Your task to perform on an android device: open app "Yahoo Mail" Image 0: 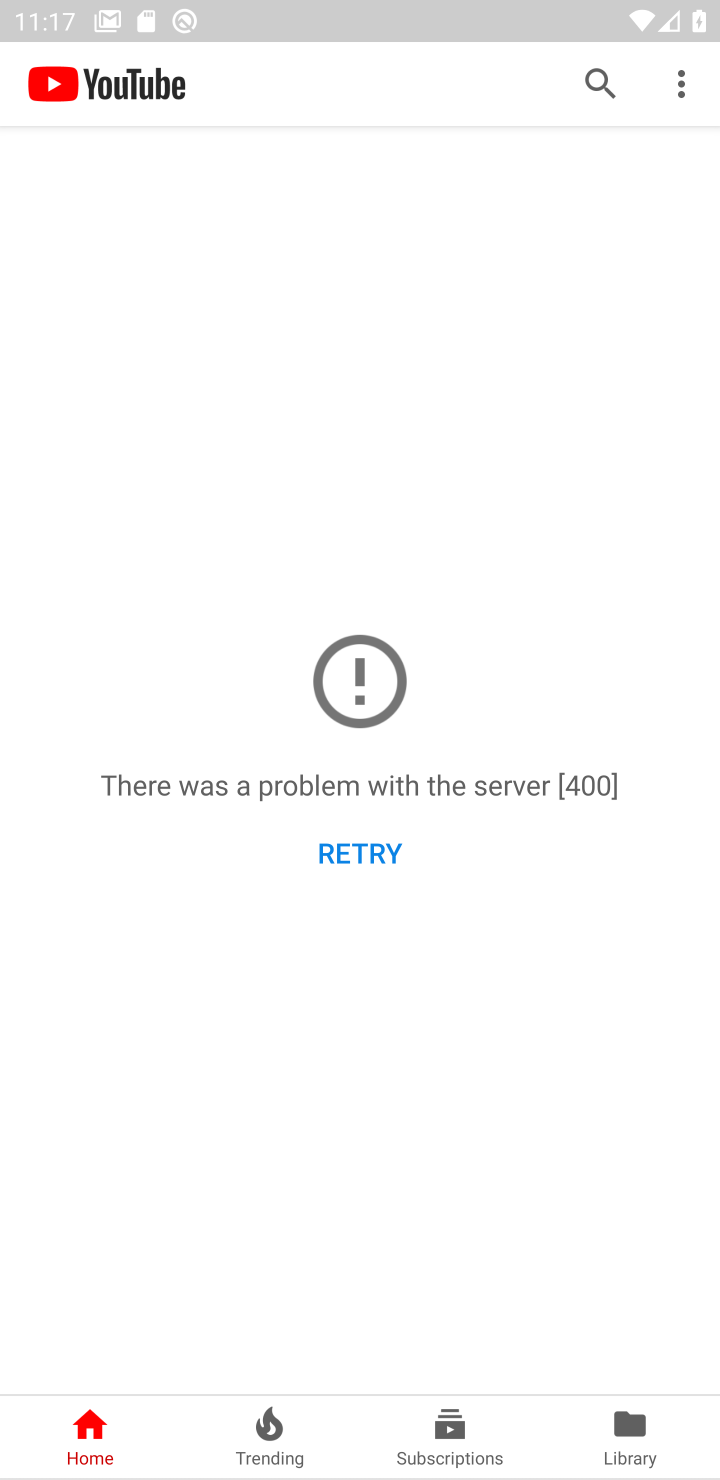
Step 0: press home button
Your task to perform on an android device: open app "Yahoo Mail" Image 1: 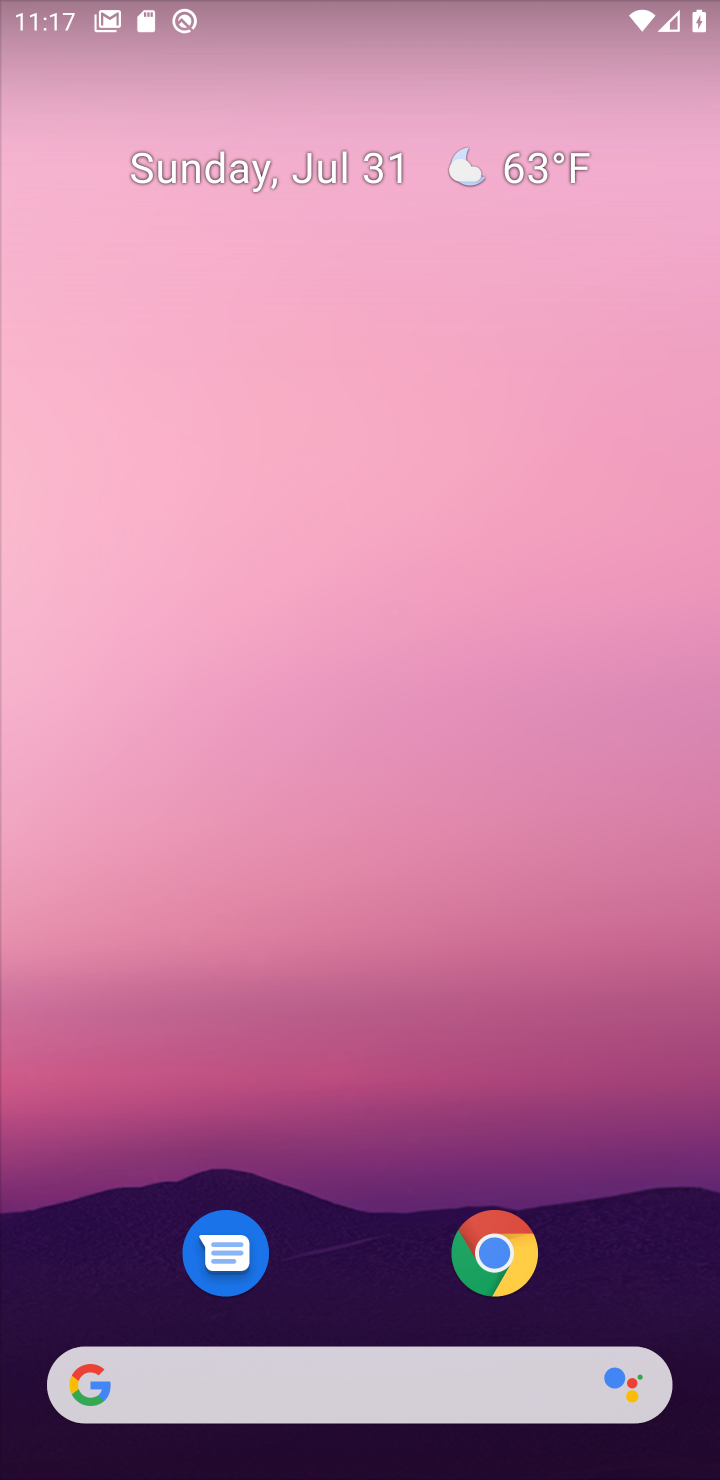
Step 1: drag from (365, 1195) to (431, 170)
Your task to perform on an android device: open app "Yahoo Mail" Image 2: 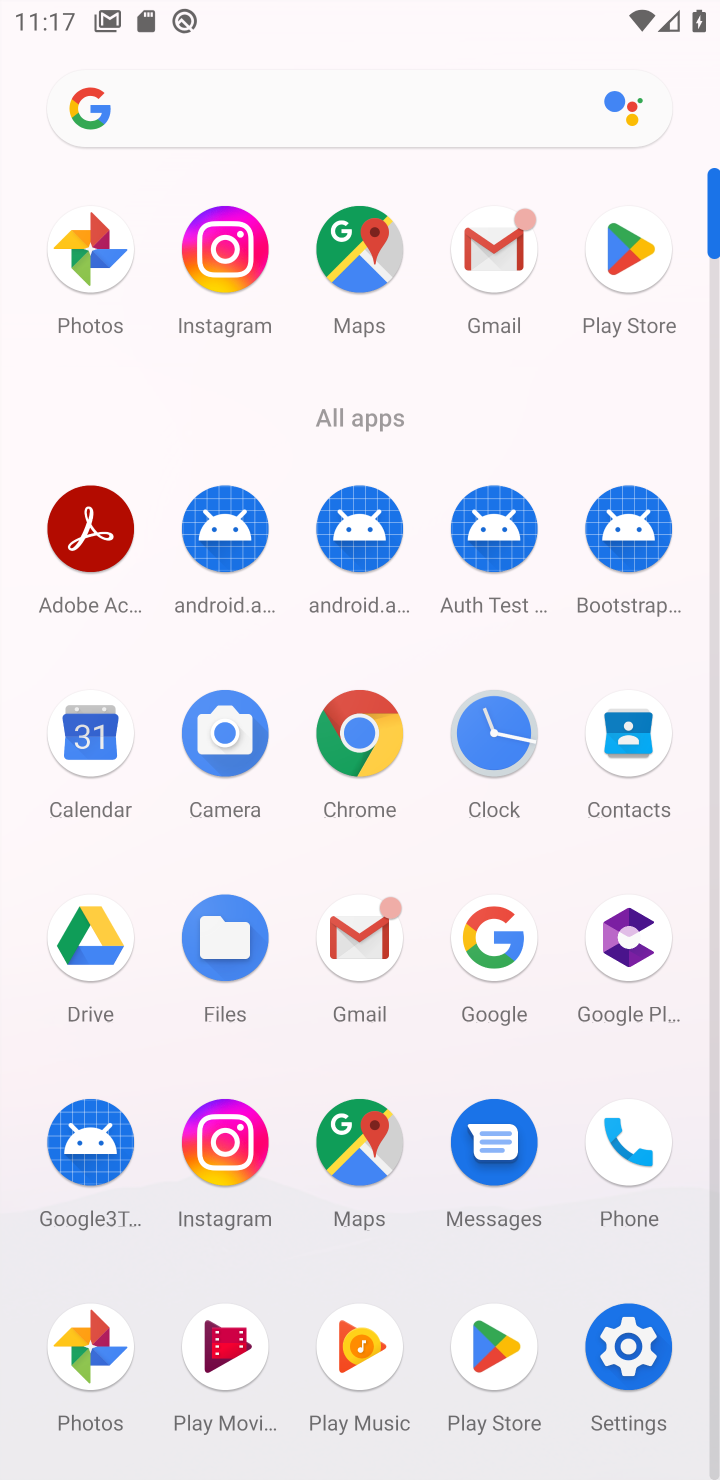
Step 2: click (630, 266)
Your task to perform on an android device: open app "Yahoo Mail" Image 3: 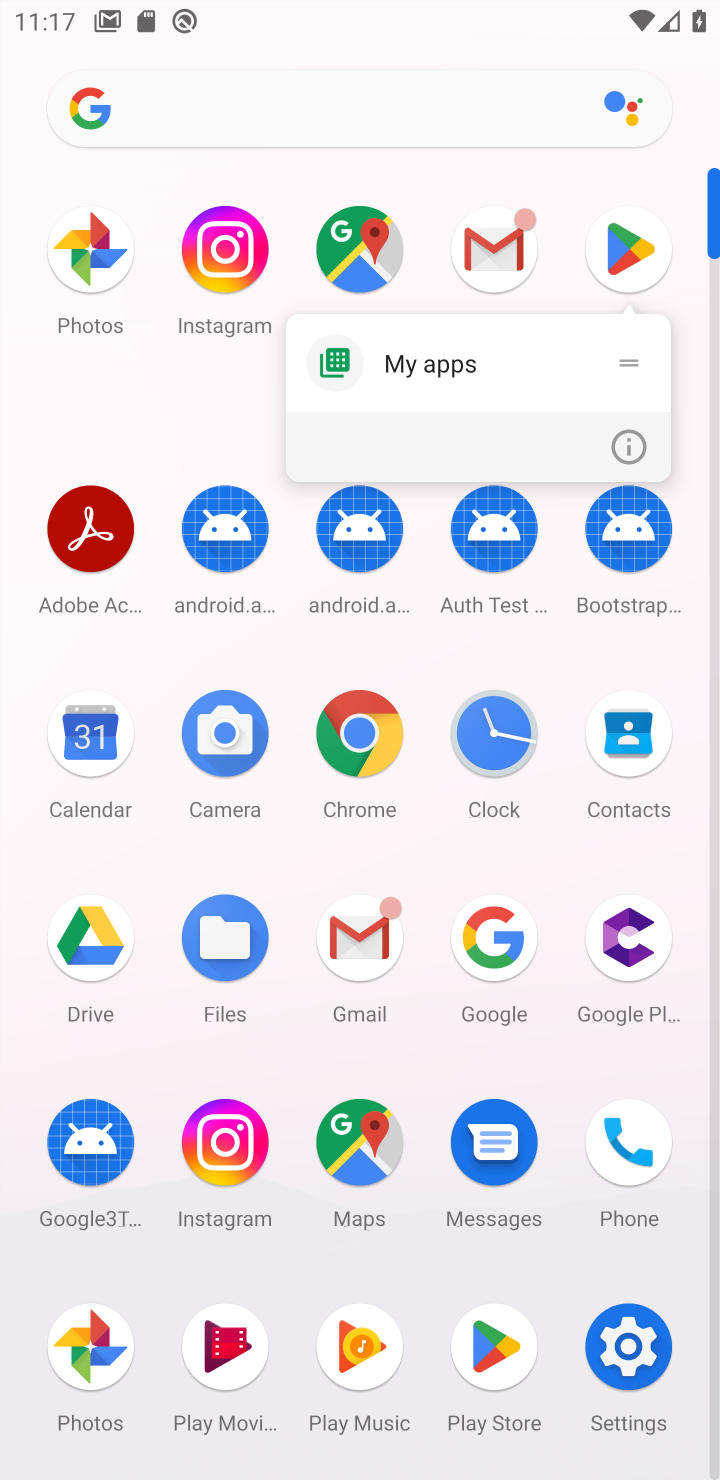
Step 3: click (620, 253)
Your task to perform on an android device: open app "Yahoo Mail" Image 4: 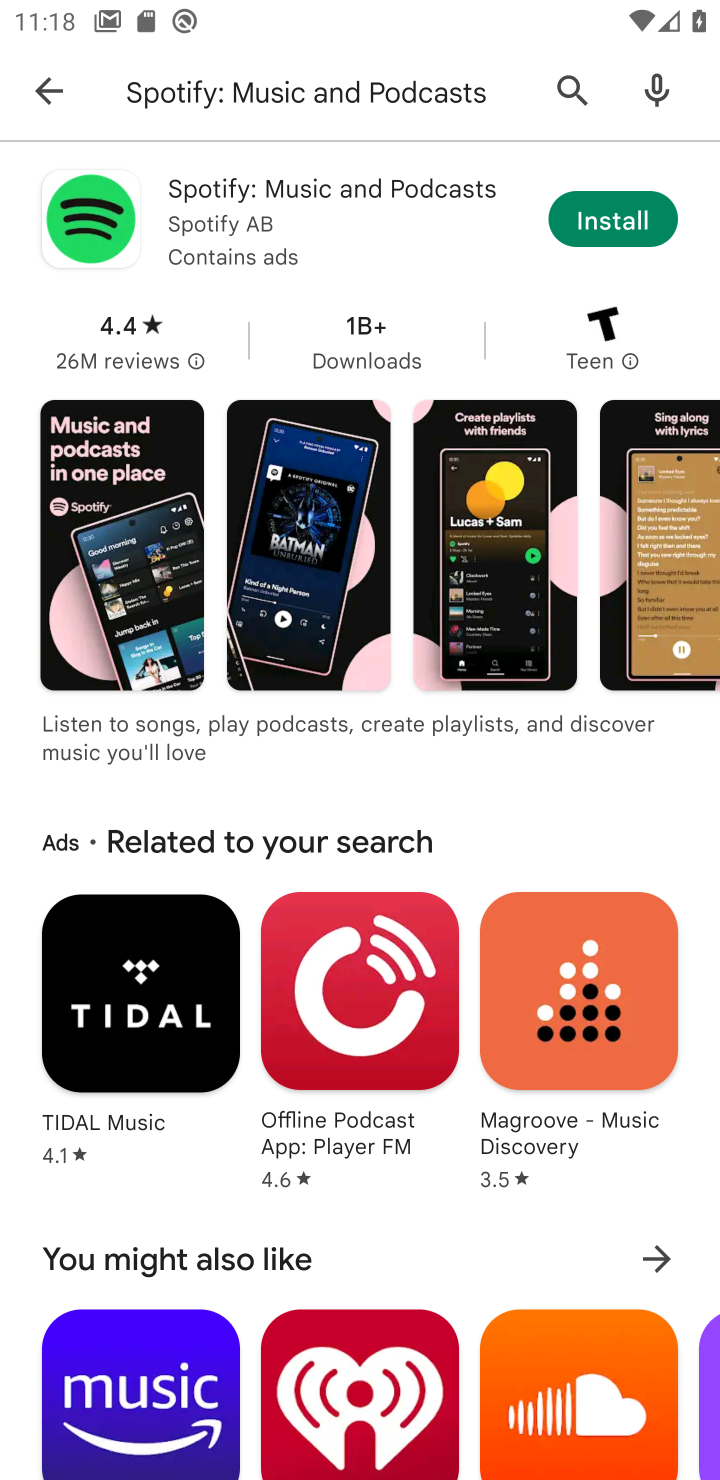
Step 4: click (400, 87)
Your task to perform on an android device: open app "Yahoo Mail" Image 5: 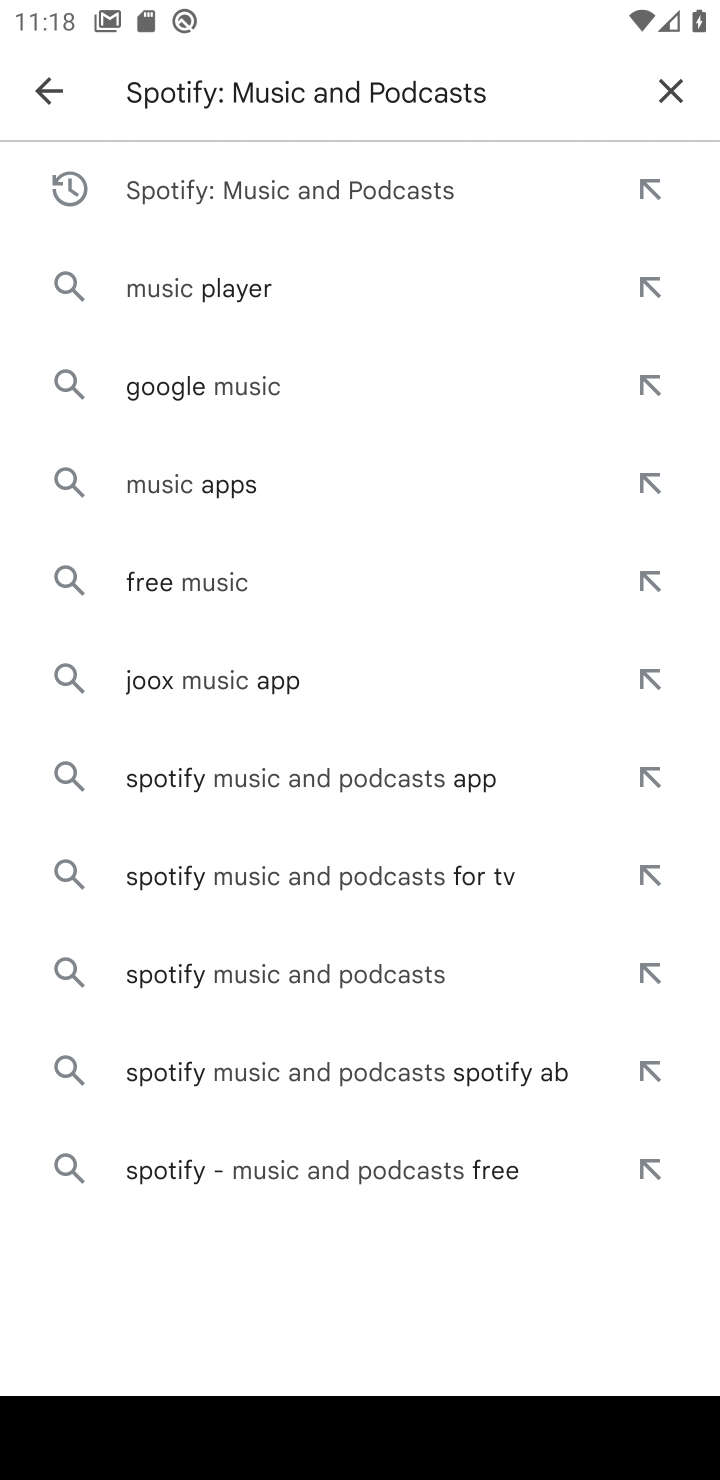
Step 5: click (677, 91)
Your task to perform on an android device: open app "Yahoo Mail" Image 6: 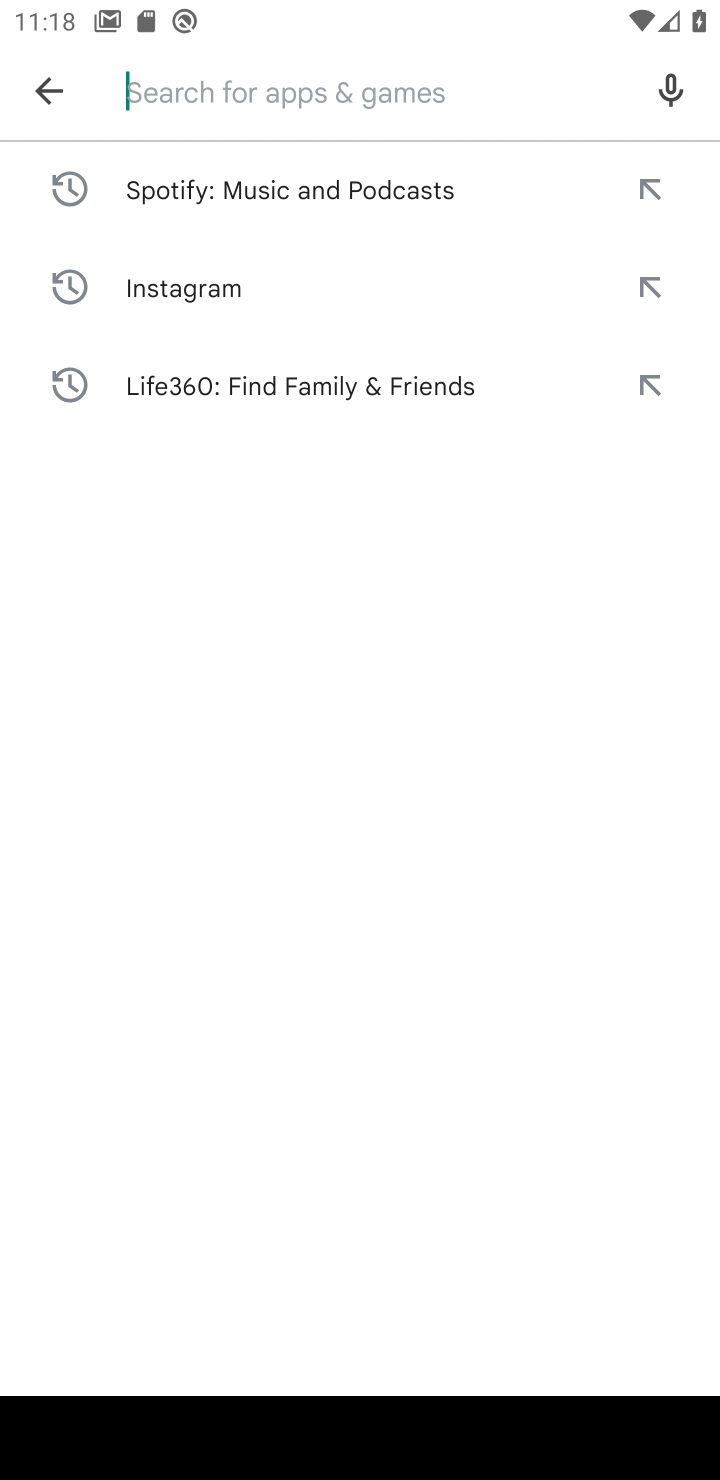
Step 6: type "Yahoo Mail"
Your task to perform on an android device: open app "Yahoo Mail" Image 7: 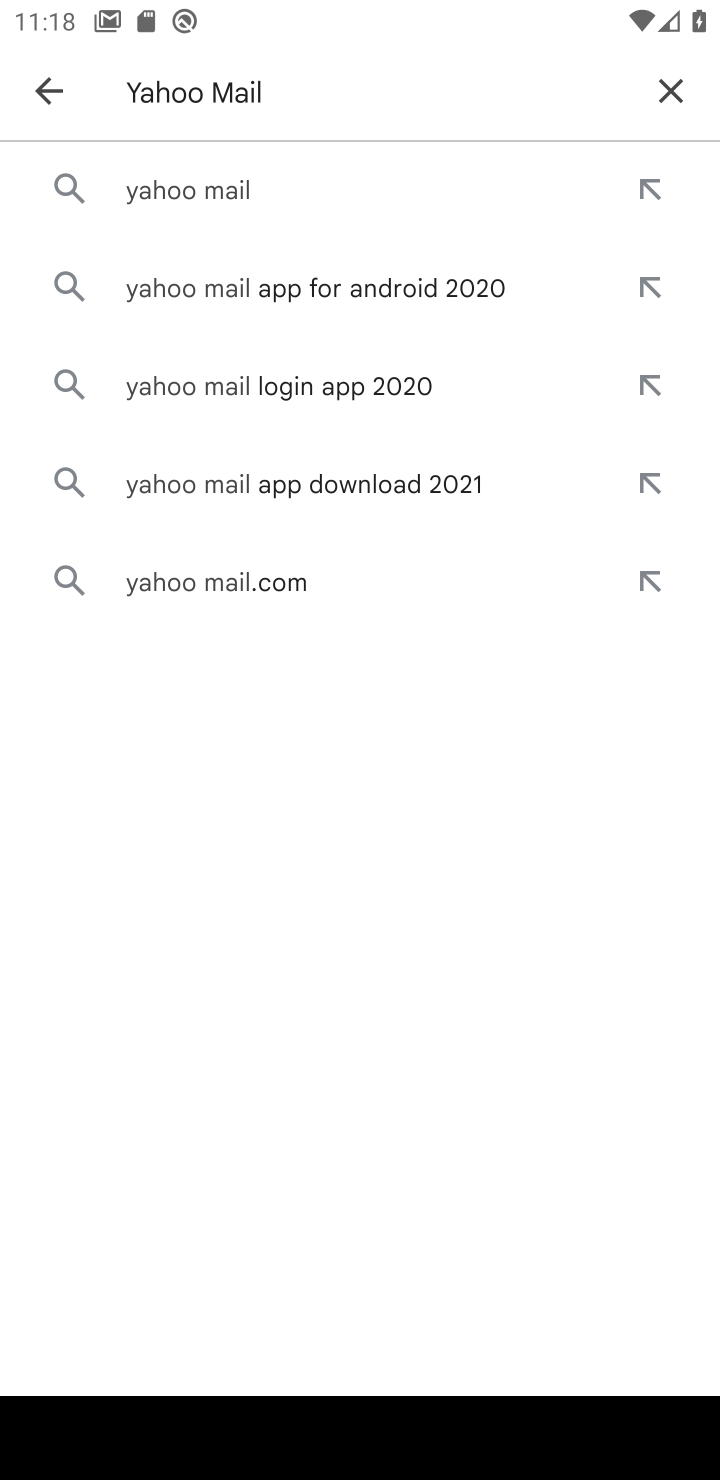
Step 7: press enter
Your task to perform on an android device: open app "Yahoo Mail" Image 8: 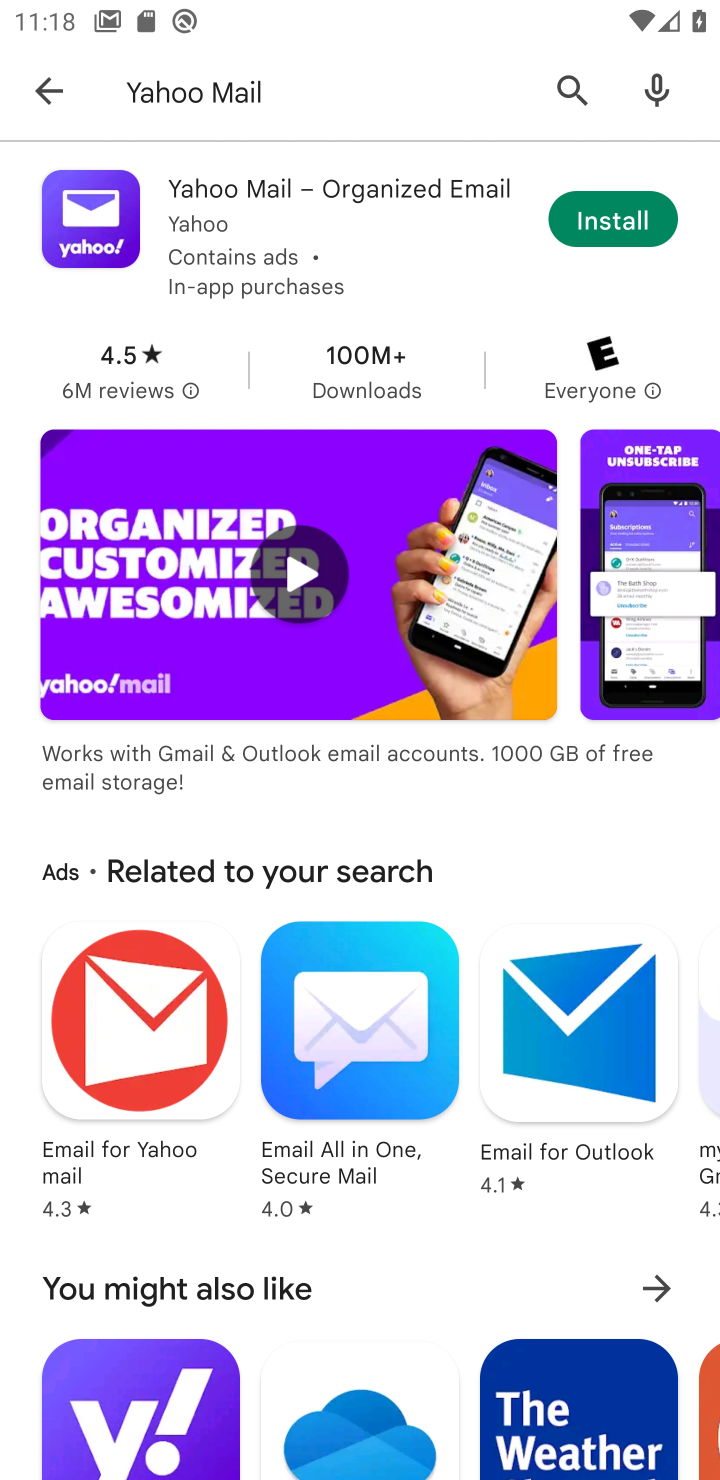
Step 8: click (294, 230)
Your task to perform on an android device: open app "Yahoo Mail" Image 9: 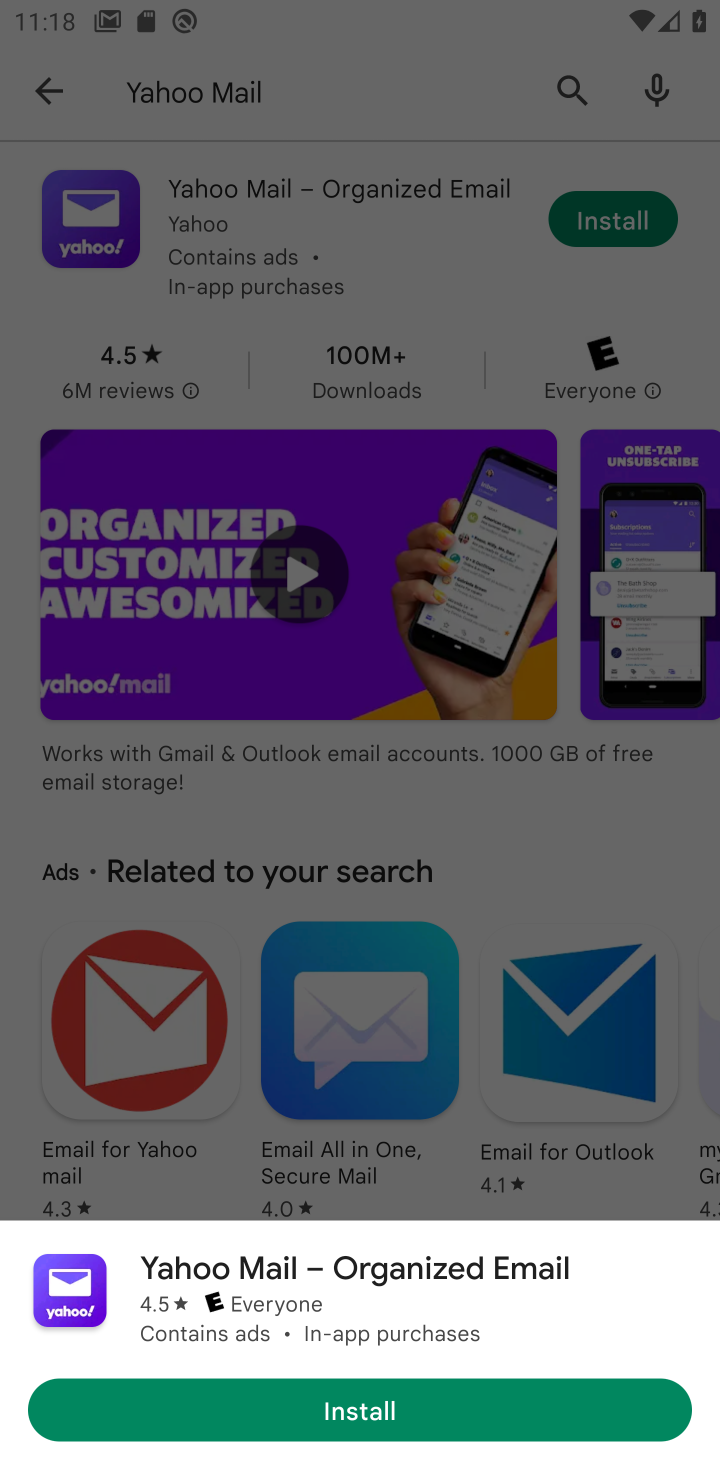
Step 9: click (292, 230)
Your task to perform on an android device: open app "Yahoo Mail" Image 10: 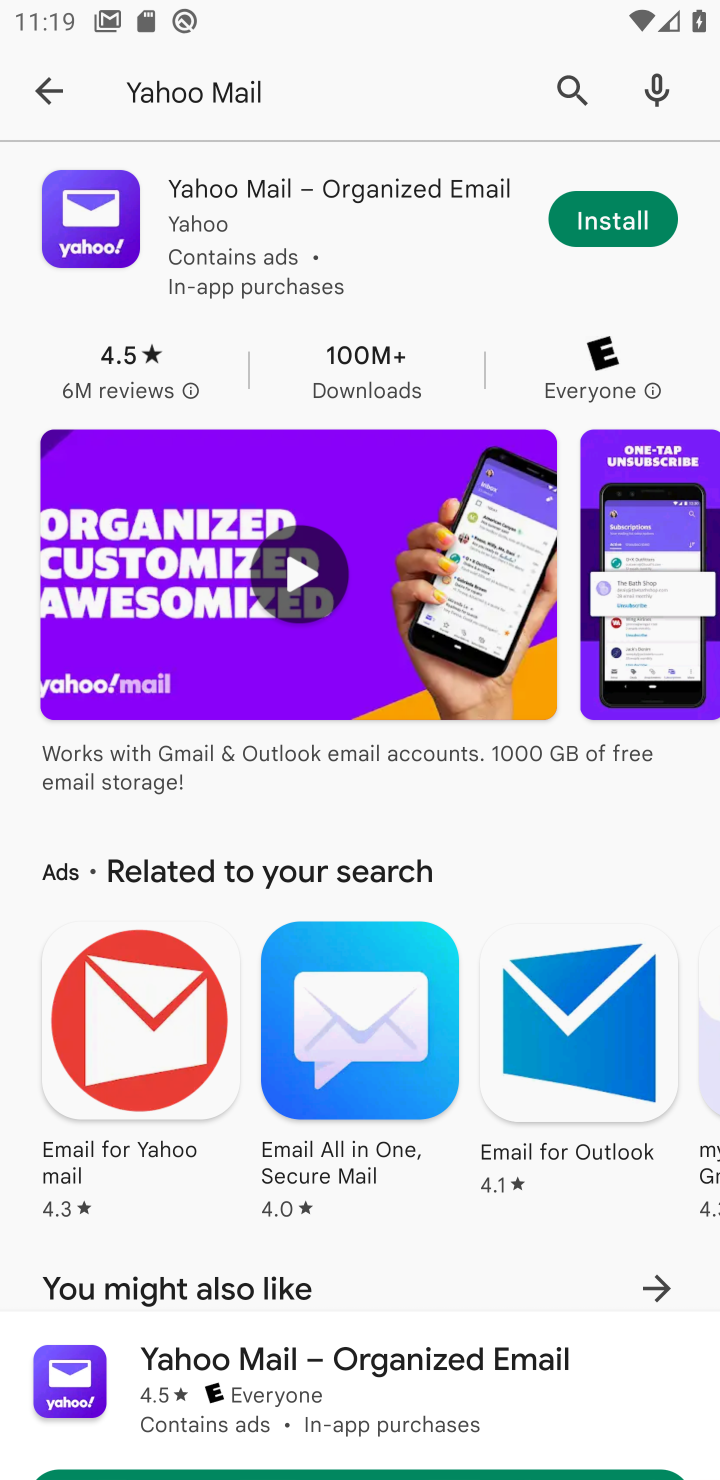
Step 10: task complete